Your task to perform on an android device: check storage Image 0: 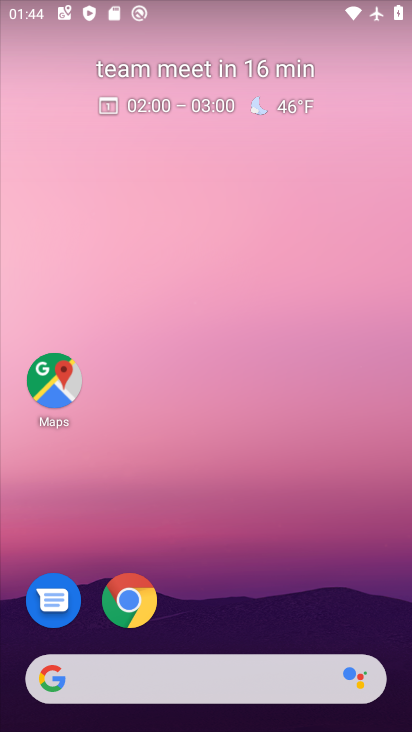
Step 0: drag from (224, 647) to (146, 3)
Your task to perform on an android device: check storage Image 1: 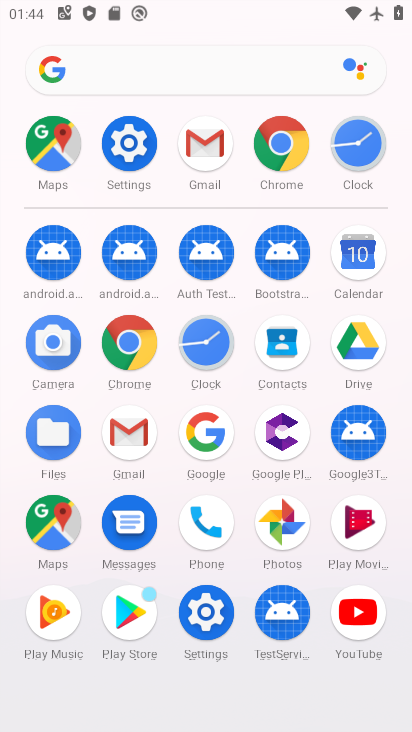
Step 1: click (135, 142)
Your task to perform on an android device: check storage Image 2: 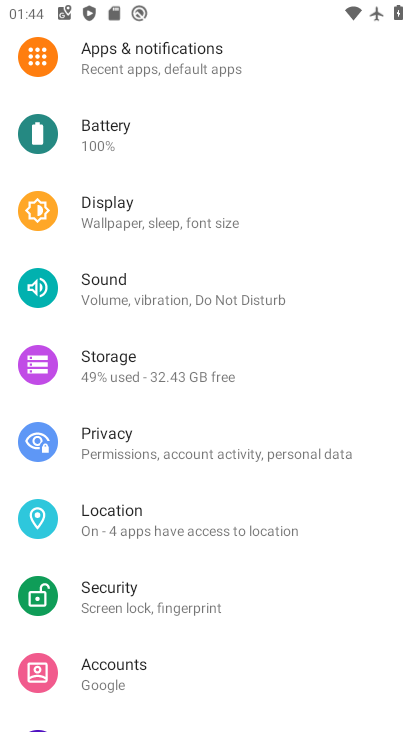
Step 2: click (119, 350)
Your task to perform on an android device: check storage Image 3: 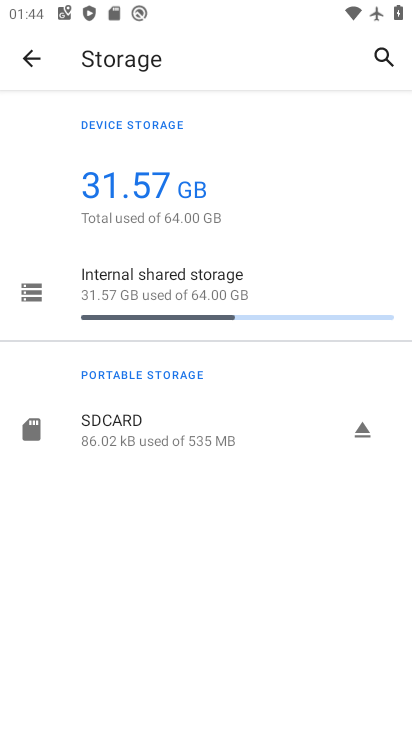
Step 3: click (139, 304)
Your task to perform on an android device: check storage Image 4: 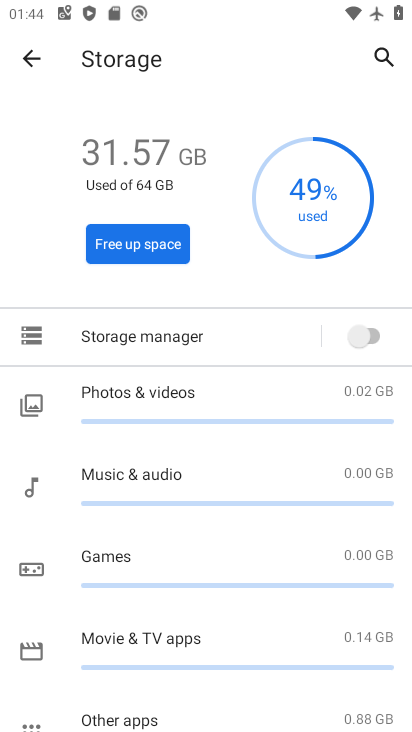
Step 4: task complete